Your task to perform on an android device: turn pop-ups on in chrome Image 0: 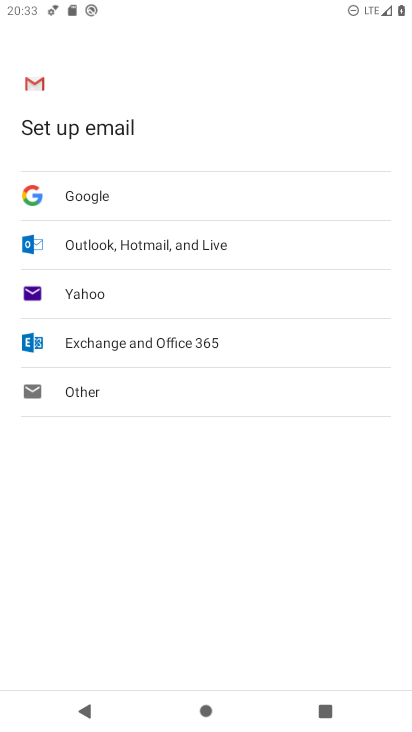
Step 0: press home button
Your task to perform on an android device: turn pop-ups on in chrome Image 1: 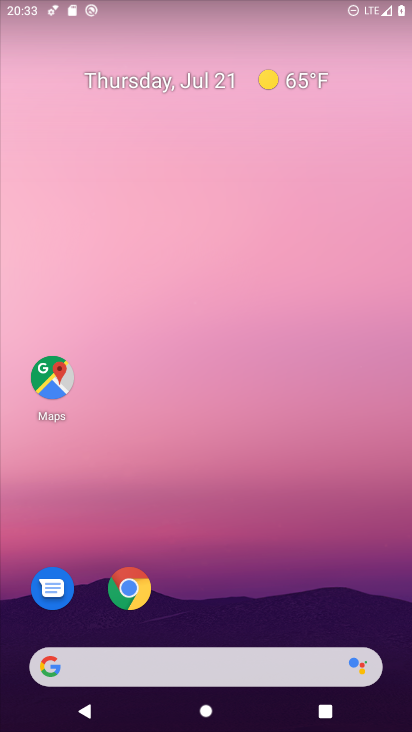
Step 1: click (150, 578)
Your task to perform on an android device: turn pop-ups on in chrome Image 2: 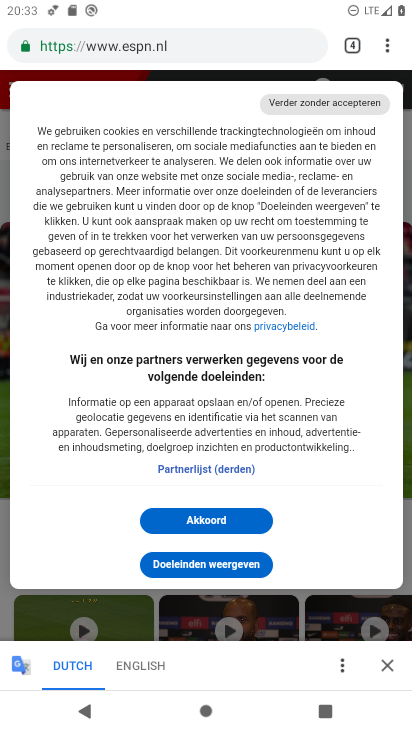
Step 2: drag from (390, 43) to (250, 544)
Your task to perform on an android device: turn pop-ups on in chrome Image 3: 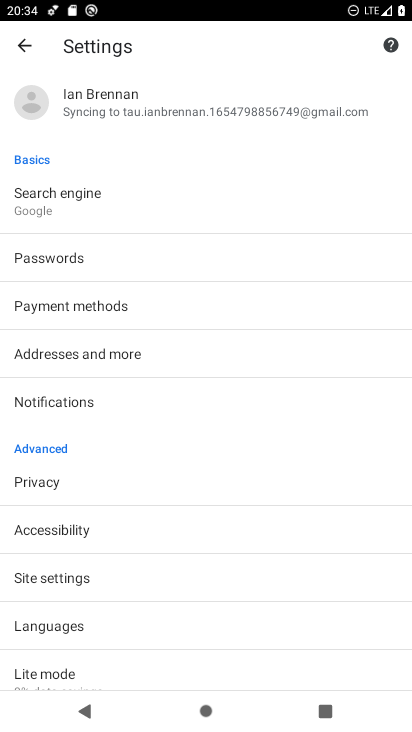
Step 3: click (77, 578)
Your task to perform on an android device: turn pop-ups on in chrome Image 4: 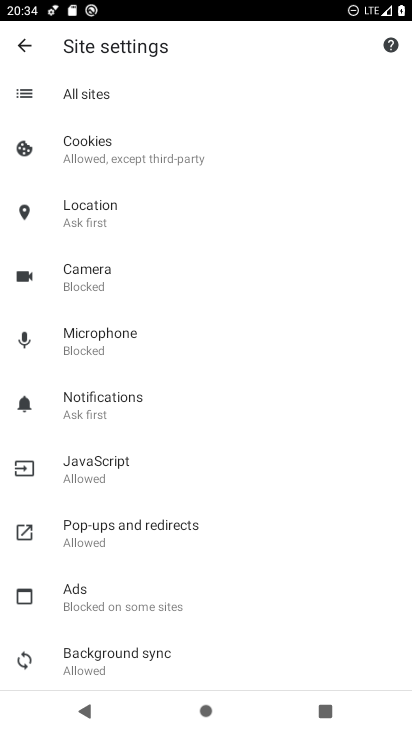
Step 4: click (119, 526)
Your task to perform on an android device: turn pop-ups on in chrome Image 5: 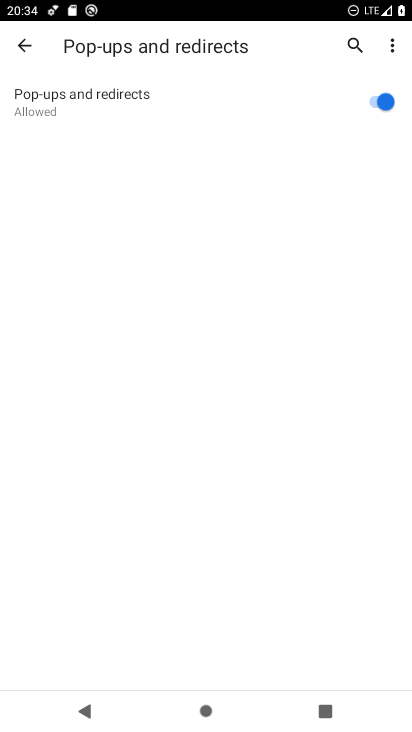
Step 5: task complete